Your task to perform on an android device: toggle improve location accuracy Image 0: 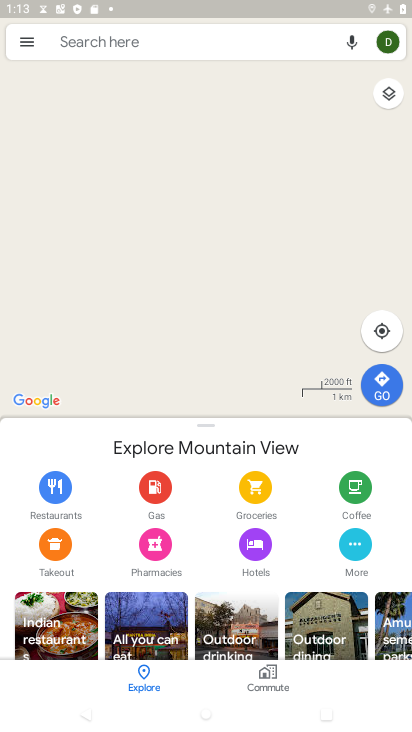
Step 0: press back button
Your task to perform on an android device: toggle improve location accuracy Image 1: 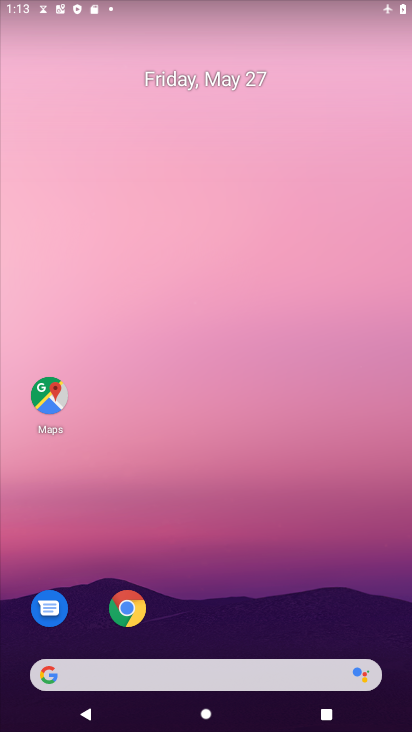
Step 1: drag from (212, 637) to (257, 154)
Your task to perform on an android device: toggle improve location accuracy Image 2: 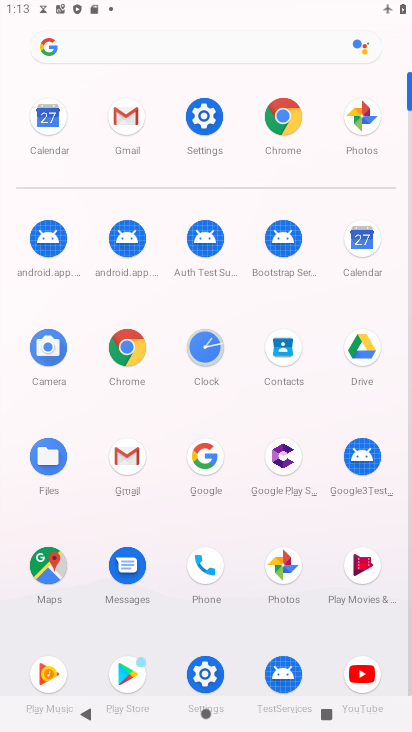
Step 2: click (210, 131)
Your task to perform on an android device: toggle improve location accuracy Image 3: 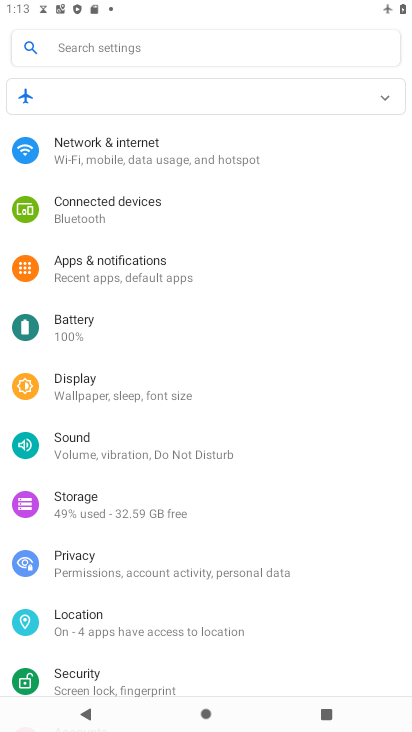
Step 3: click (80, 625)
Your task to perform on an android device: toggle improve location accuracy Image 4: 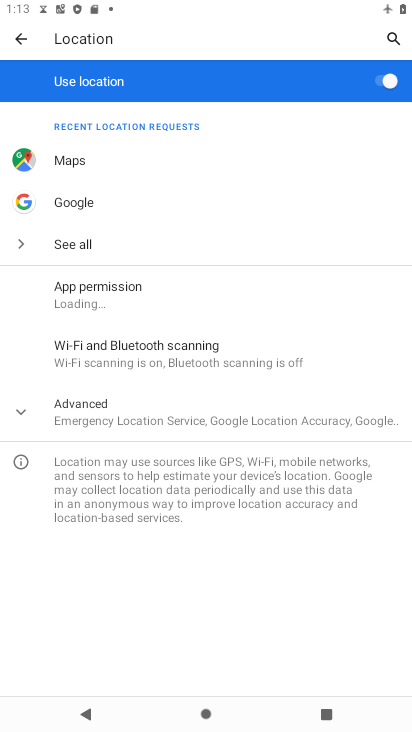
Step 4: click (124, 422)
Your task to perform on an android device: toggle improve location accuracy Image 5: 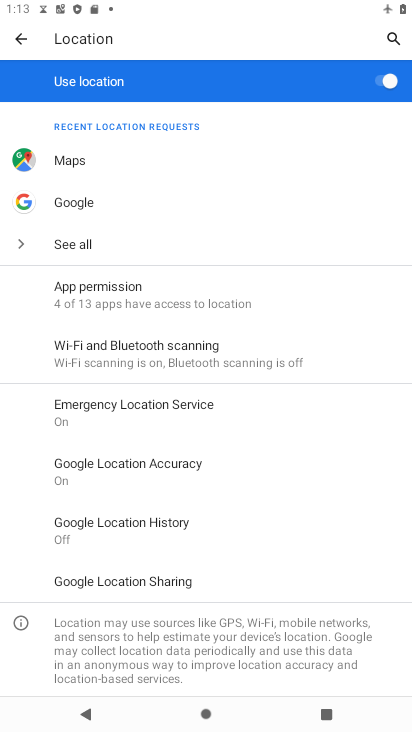
Step 5: click (169, 476)
Your task to perform on an android device: toggle improve location accuracy Image 6: 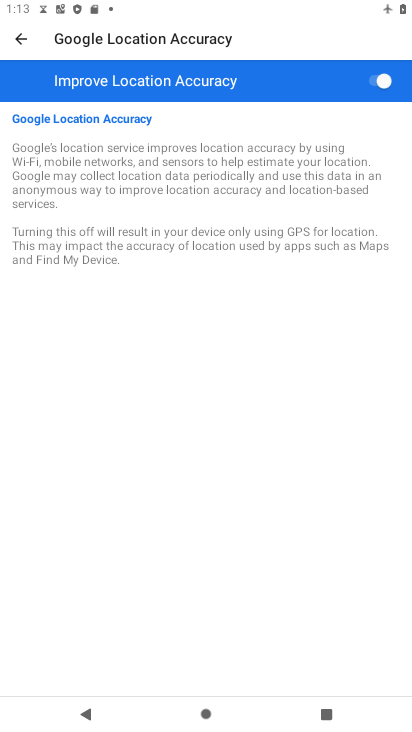
Step 6: click (390, 76)
Your task to perform on an android device: toggle improve location accuracy Image 7: 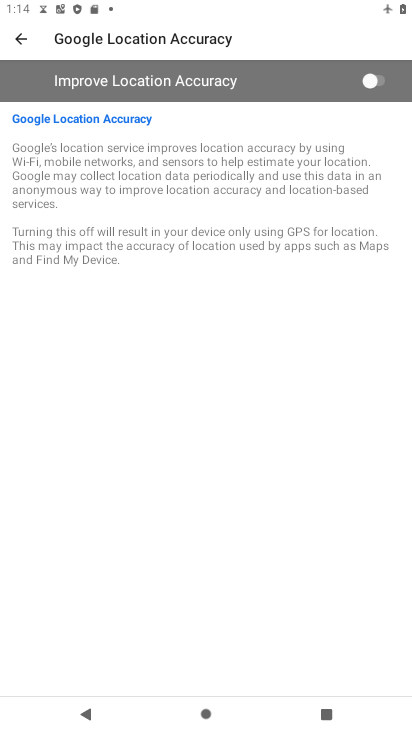
Step 7: task complete